Your task to perform on an android device: Search for flights from Buenos aires to Helsinki Image 0: 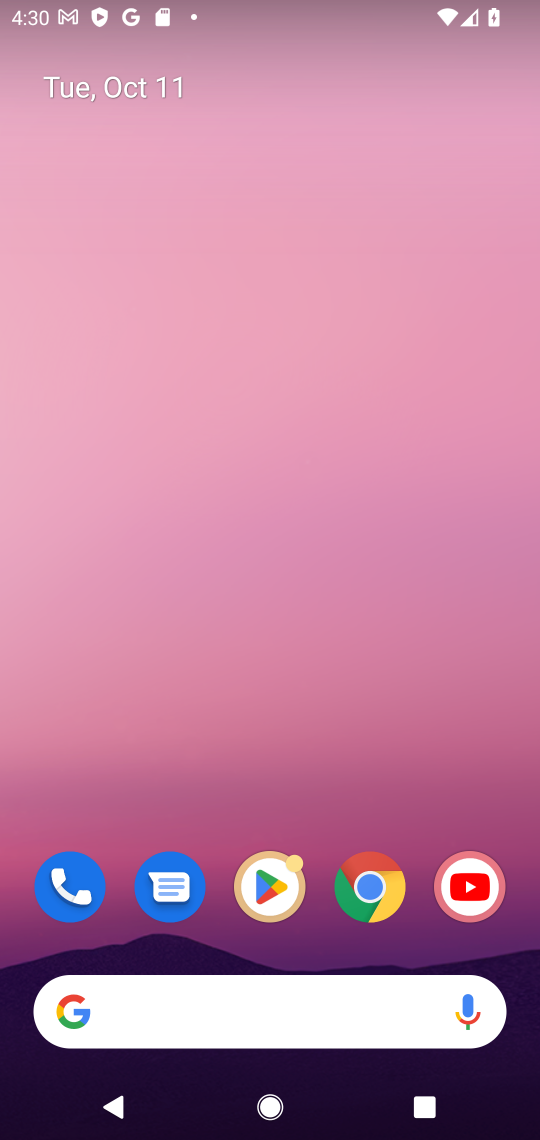
Step 0: click (170, 998)
Your task to perform on an android device: Search for flights from Buenos aires to Helsinki Image 1: 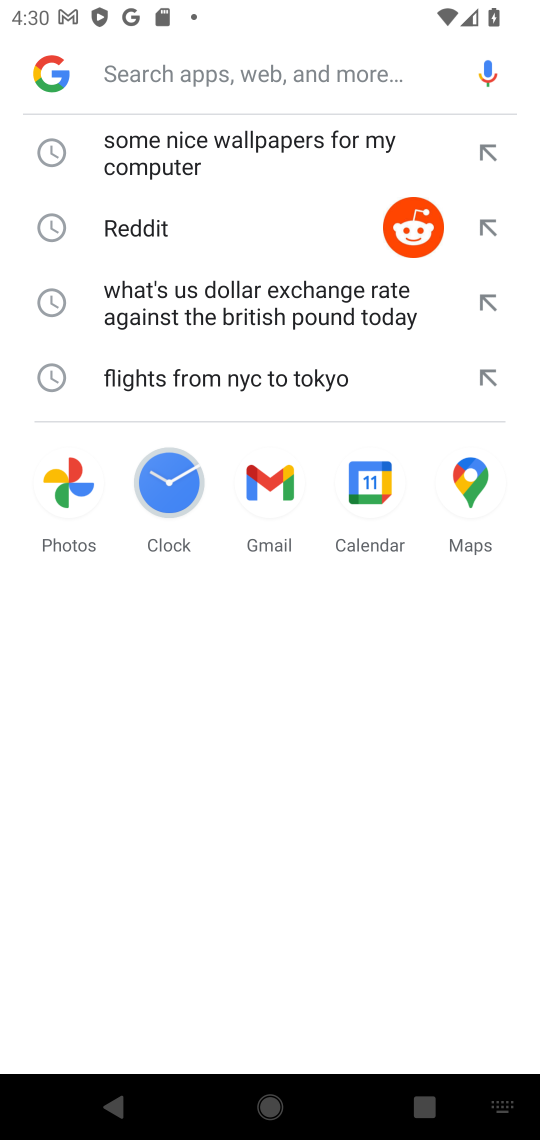
Step 1: type ""
Your task to perform on an android device: Search for flights from Buenos aires to Helsinki Image 2: 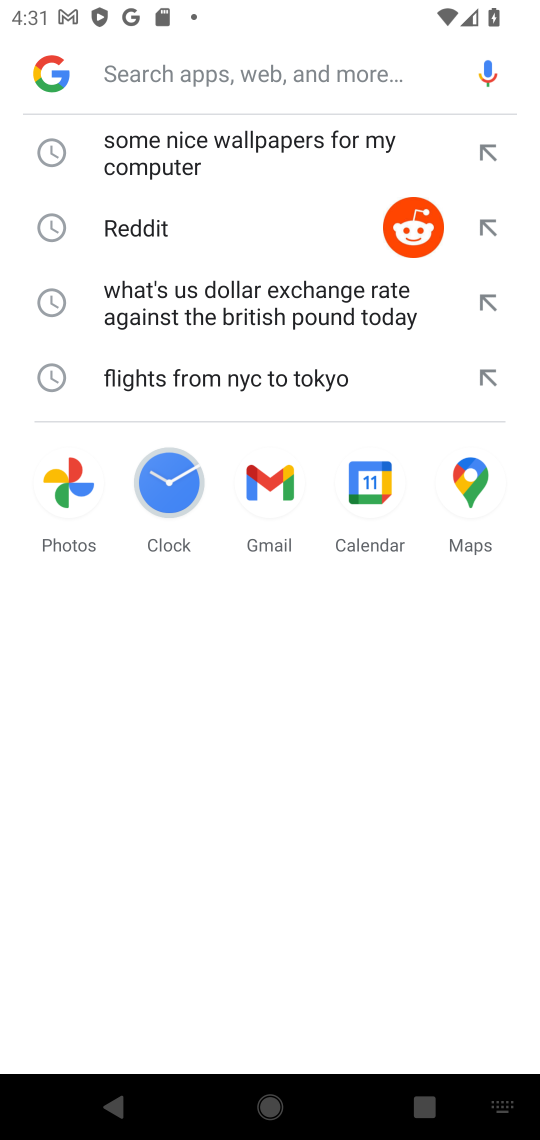
Step 2: type "flights from Buenos aires to Helsinki"
Your task to perform on an android device: Search for flights from Buenos aires to Helsinki Image 3: 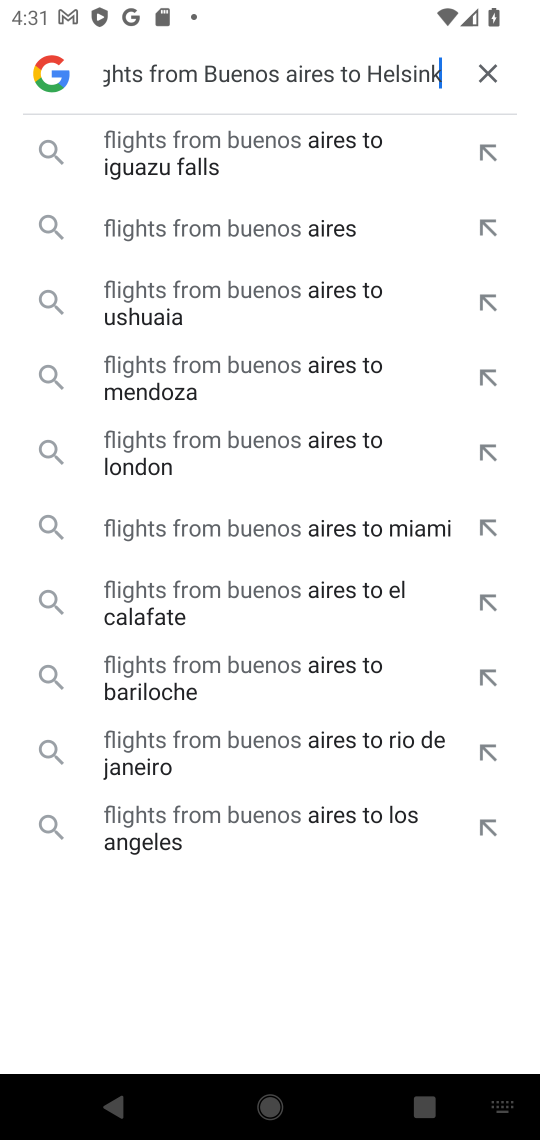
Step 3: type ""
Your task to perform on an android device: Search for flights from Buenos aires to Helsinki Image 4: 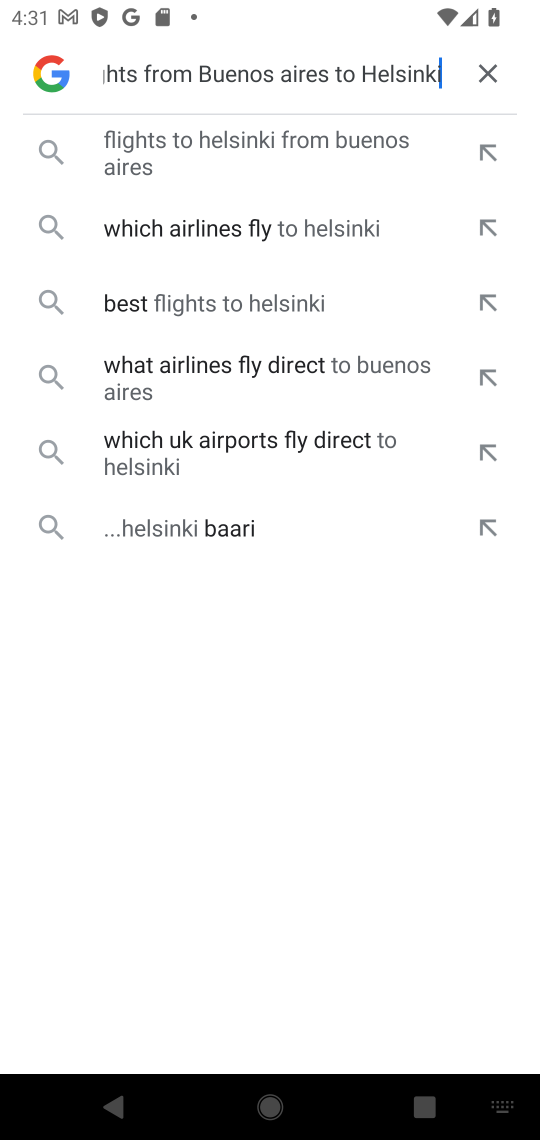
Step 4: click (159, 169)
Your task to perform on an android device: Search for flights from Buenos aires to Helsinki Image 5: 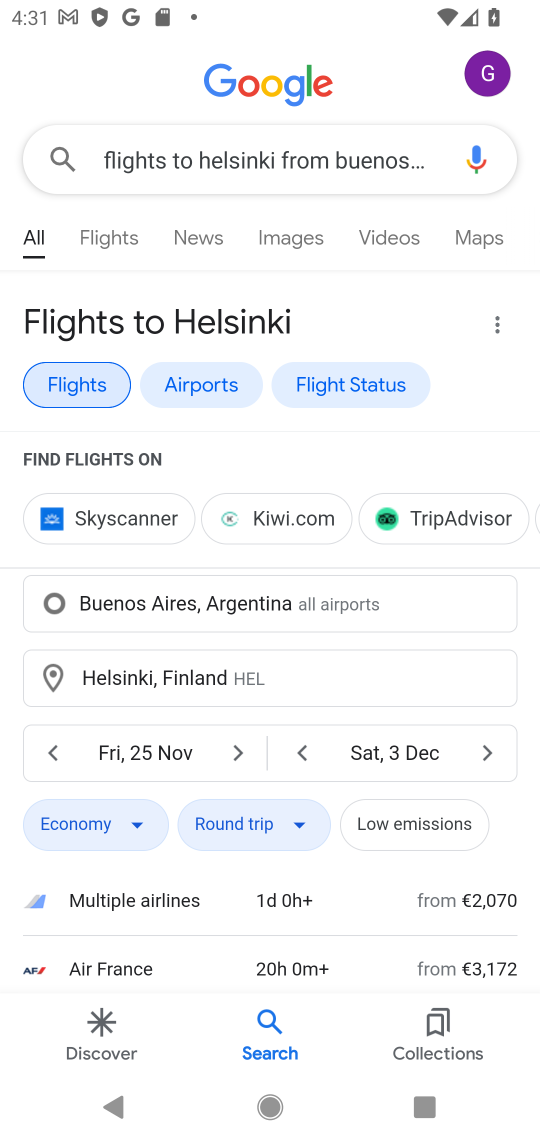
Step 5: drag from (327, 671) to (344, 307)
Your task to perform on an android device: Search for flights from Buenos aires to Helsinki Image 6: 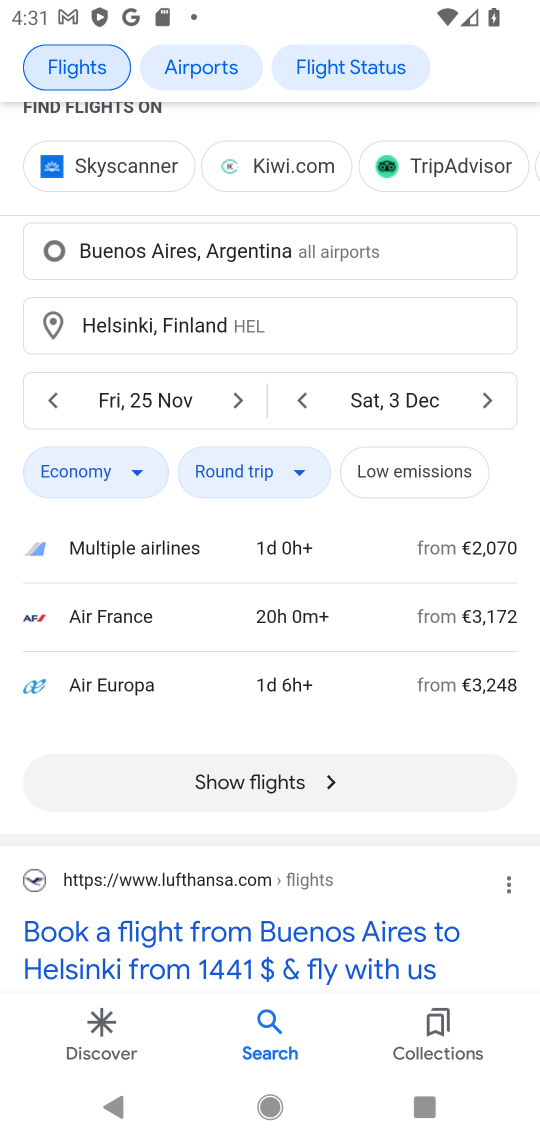
Step 6: click (267, 778)
Your task to perform on an android device: Search for flights from Buenos aires to Helsinki Image 7: 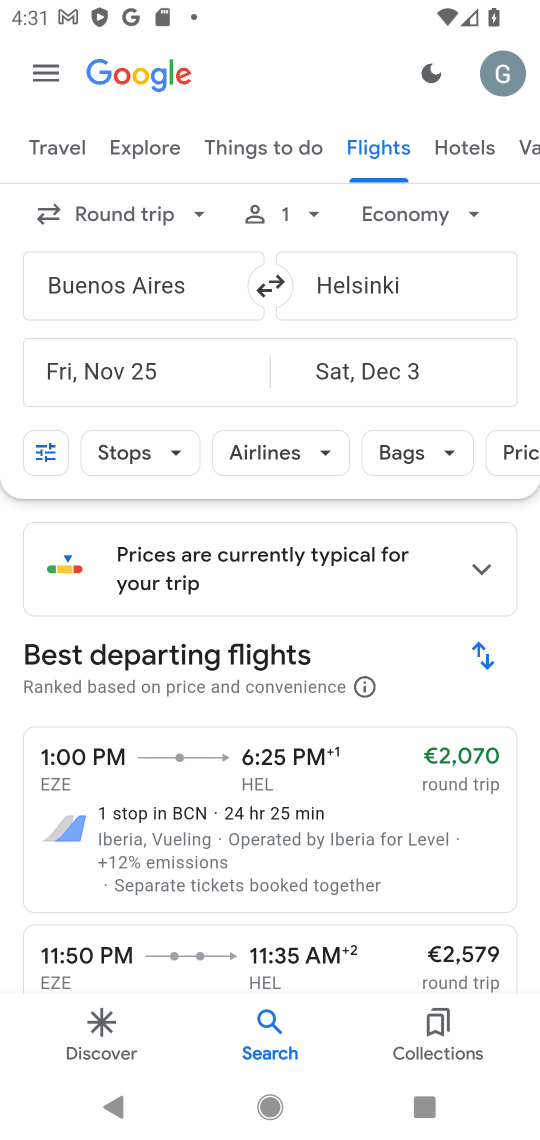
Step 7: task complete